Your task to perform on an android device: toggle translation in the chrome app Image 0: 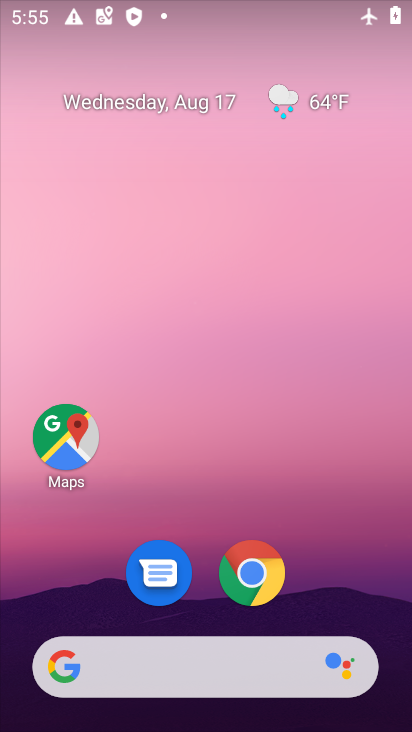
Step 0: drag from (364, 570) to (3, 140)
Your task to perform on an android device: toggle translation in the chrome app Image 1: 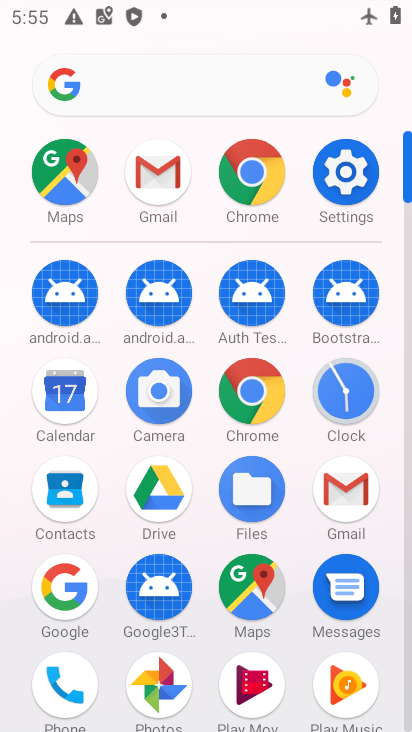
Step 1: click (258, 175)
Your task to perform on an android device: toggle translation in the chrome app Image 2: 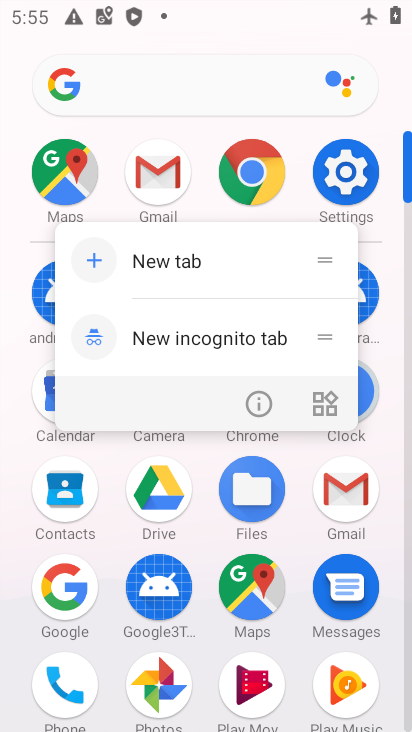
Step 2: click (258, 176)
Your task to perform on an android device: toggle translation in the chrome app Image 3: 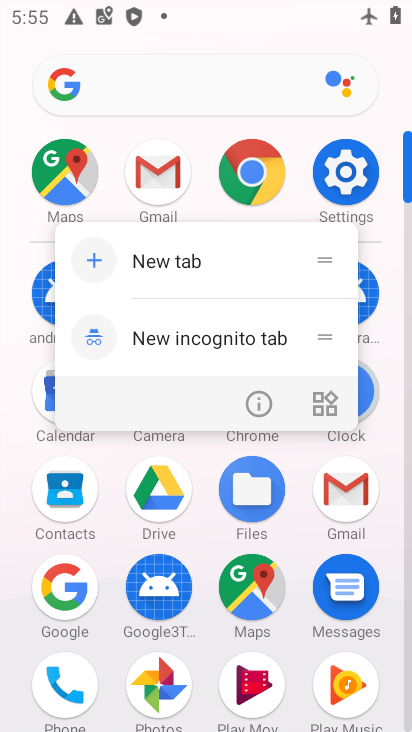
Step 3: click (258, 175)
Your task to perform on an android device: toggle translation in the chrome app Image 4: 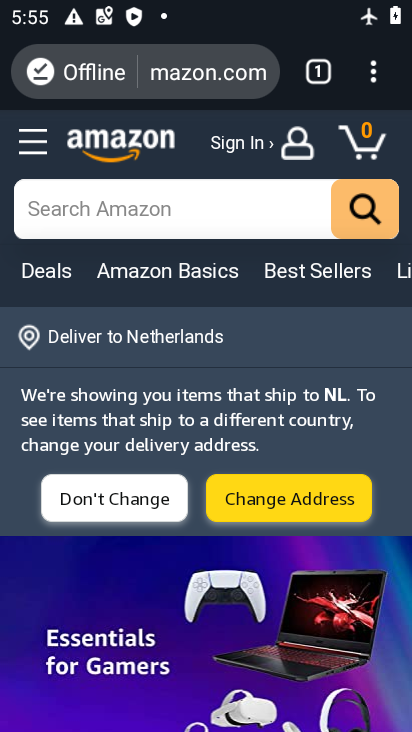
Step 4: drag from (379, 87) to (154, 577)
Your task to perform on an android device: toggle translation in the chrome app Image 5: 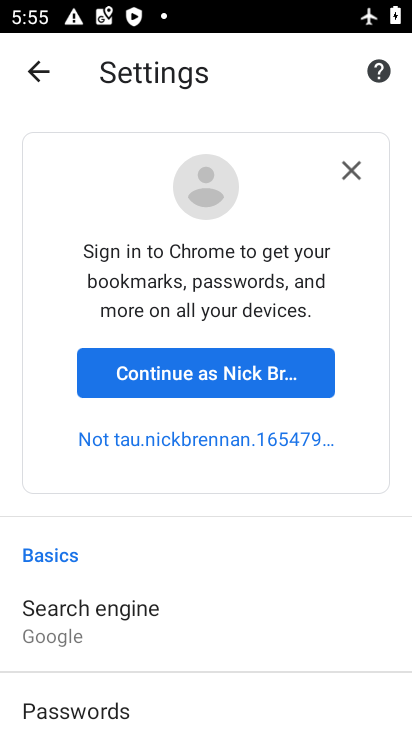
Step 5: drag from (166, 621) to (149, 381)
Your task to perform on an android device: toggle translation in the chrome app Image 6: 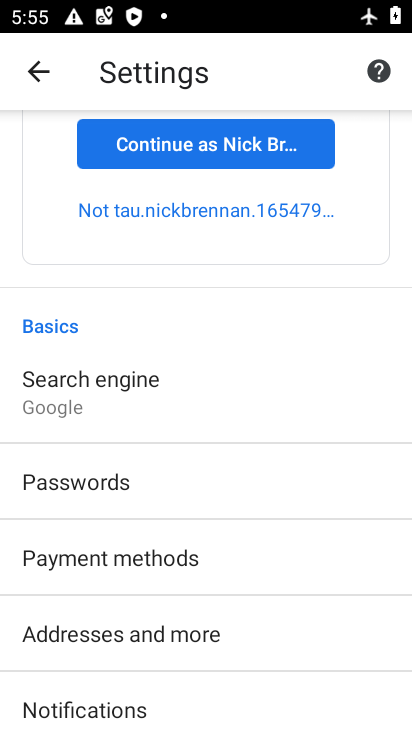
Step 6: drag from (241, 666) to (311, 345)
Your task to perform on an android device: toggle translation in the chrome app Image 7: 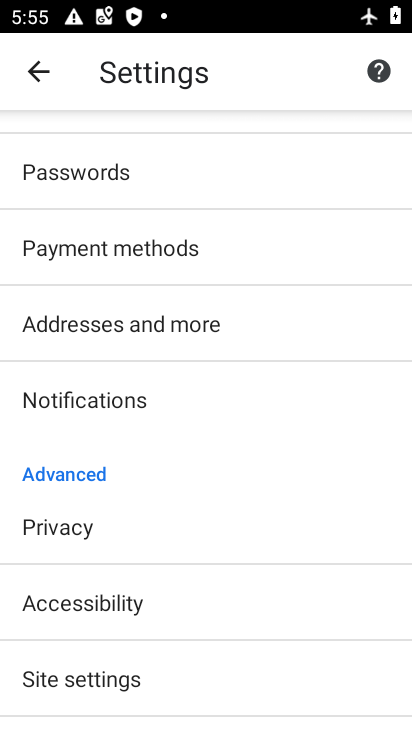
Step 7: drag from (213, 602) to (278, 302)
Your task to perform on an android device: toggle translation in the chrome app Image 8: 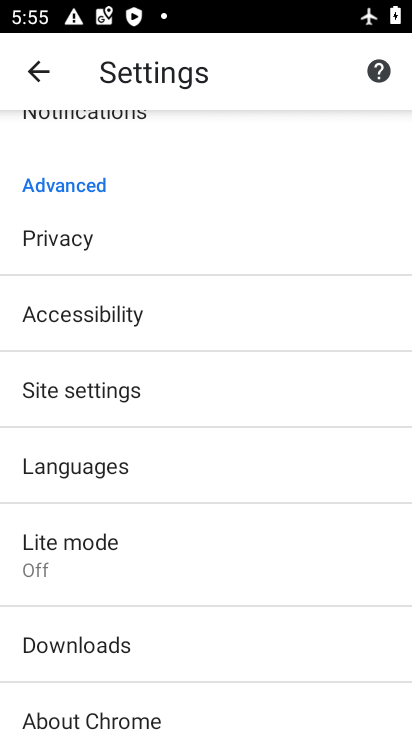
Step 8: click (127, 467)
Your task to perform on an android device: toggle translation in the chrome app Image 9: 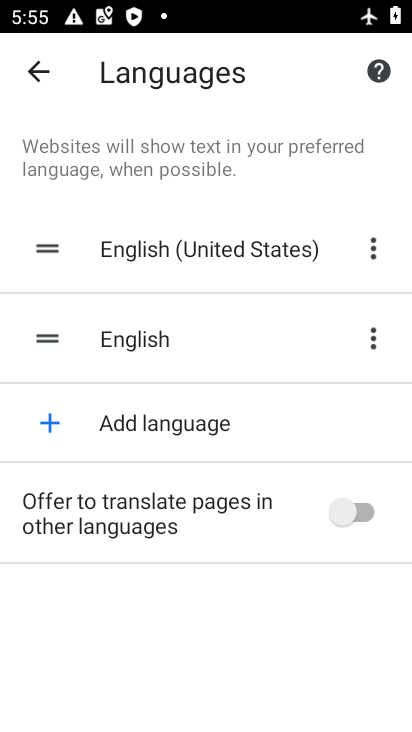
Step 9: click (371, 523)
Your task to perform on an android device: toggle translation in the chrome app Image 10: 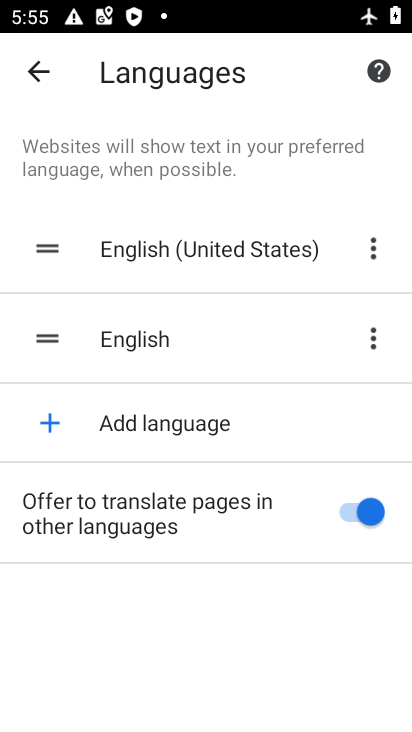
Step 10: task complete